Your task to perform on an android device: Empty the shopping cart on amazon. Add "usb-a" to the cart on amazon, then select checkout. Image 0: 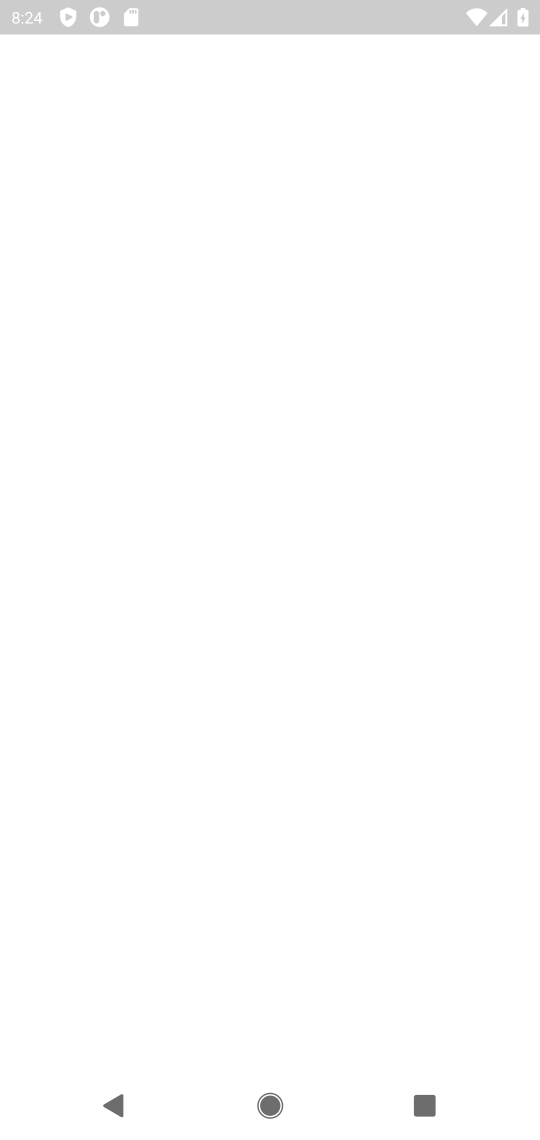
Step 0: press home button
Your task to perform on an android device: Empty the shopping cart on amazon. Add "usb-a" to the cart on amazon, then select checkout. Image 1: 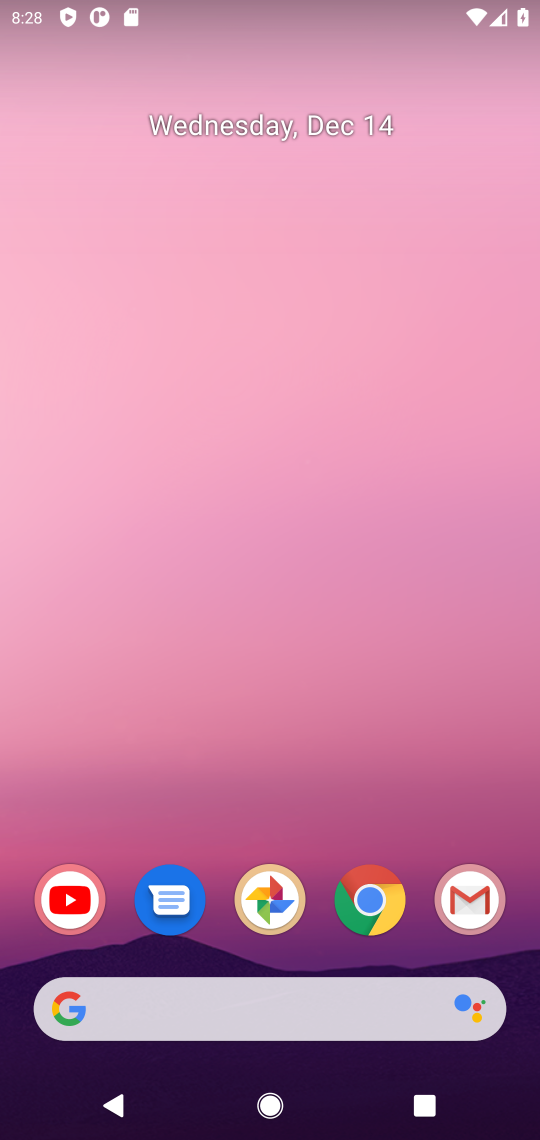
Step 1: click (238, 1003)
Your task to perform on an android device: Empty the shopping cart on amazon. Add "usb-a" to the cart on amazon, then select checkout. Image 2: 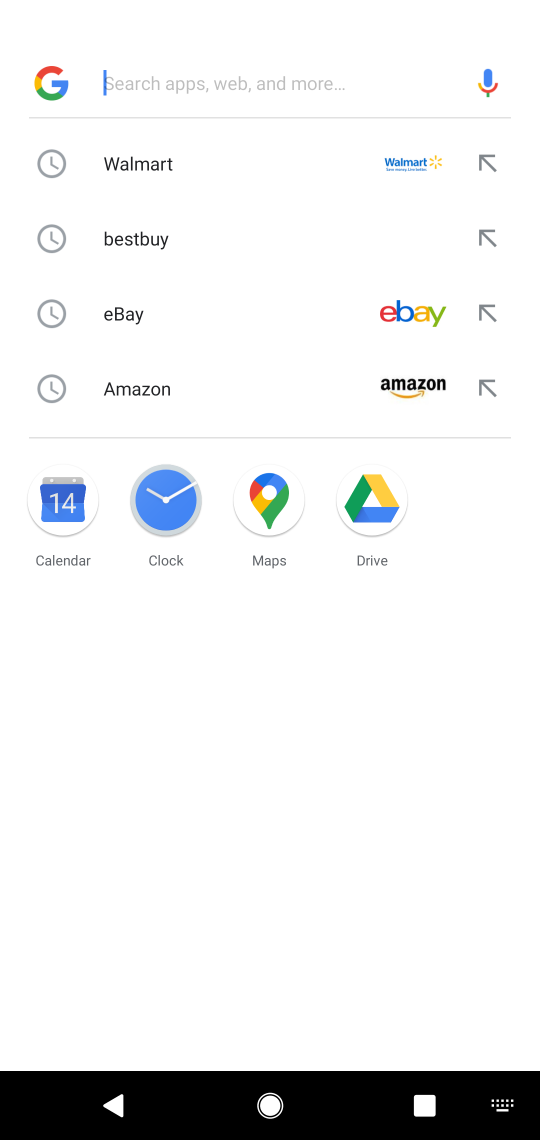
Step 2: click (119, 380)
Your task to perform on an android device: Empty the shopping cart on amazon. Add "usb-a" to the cart on amazon, then select checkout. Image 3: 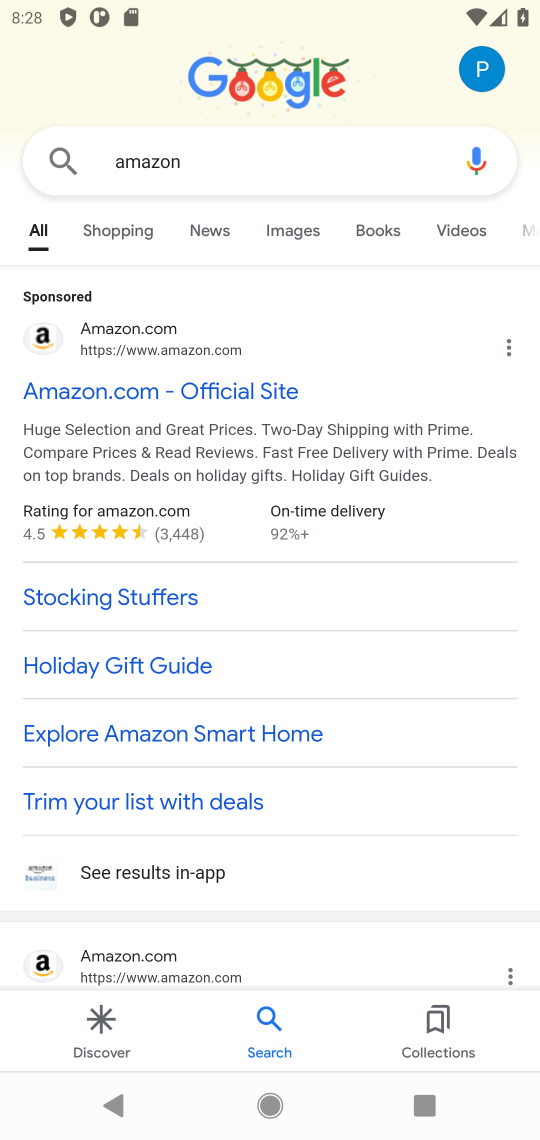
Step 3: click (178, 384)
Your task to perform on an android device: Empty the shopping cart on amazon. Add "usb-a" to the cart on amazon, then select checkout. Image 4: 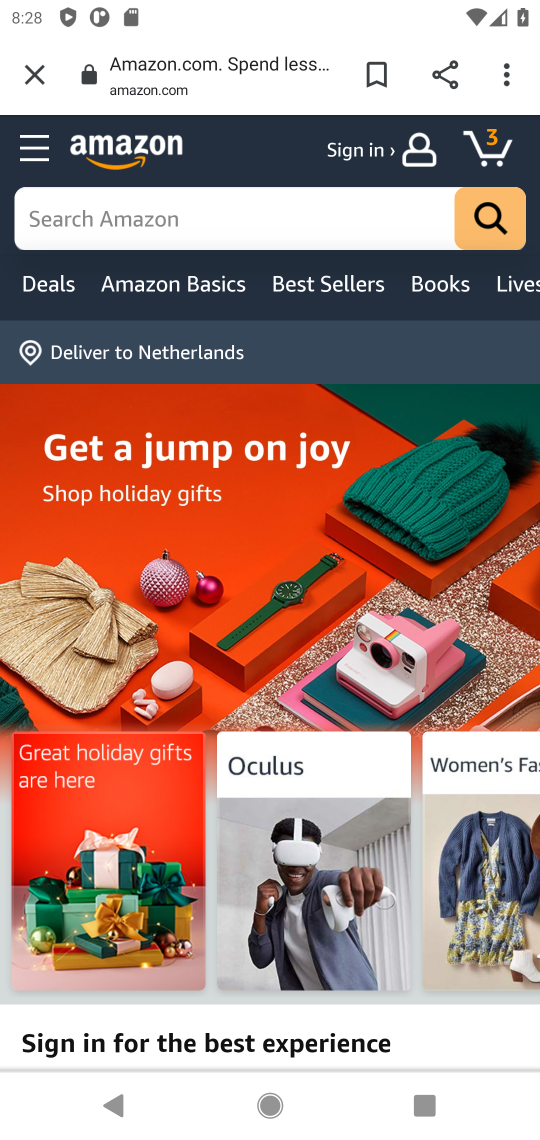
Step 4: click (501, 129)
Your task to perform on an android device: Empty the shopping cart on amazon. Add "usb-a" to the cart on amazon, then select checkout. Image 5: 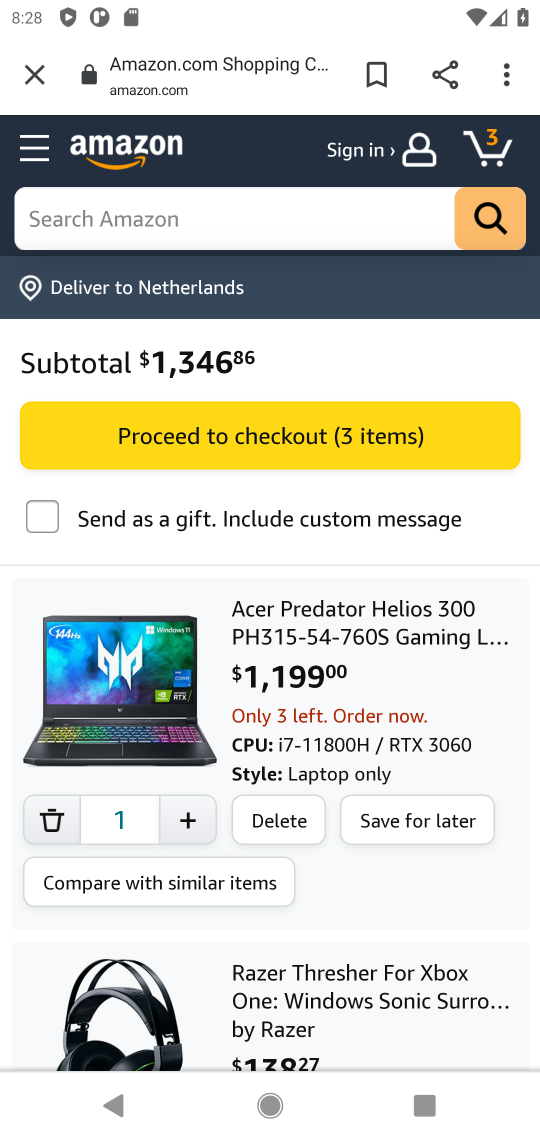
Step 5: click (47, 836)
Your task to perform on an android device: Empty the shopping cart on amazon. Add "usb-a" to the cart on amazon, then select checkout. Image 6: 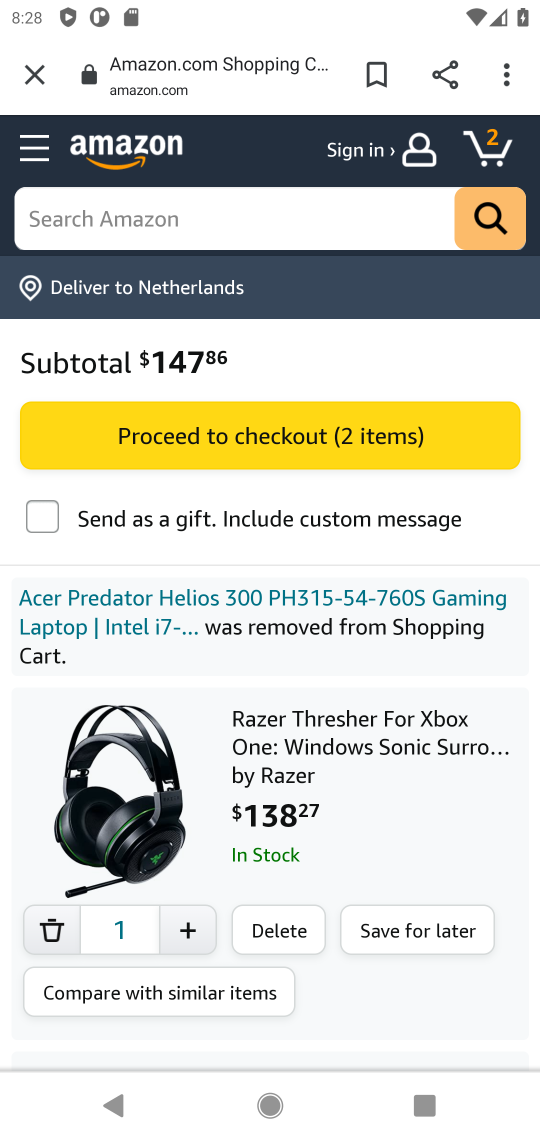
Step 6: click (39, 939)
Your task to perform on an android device: Empty the shopping cart on amazon. Add "usb-a" to the cart on amazon, then select checkout. Image 7: 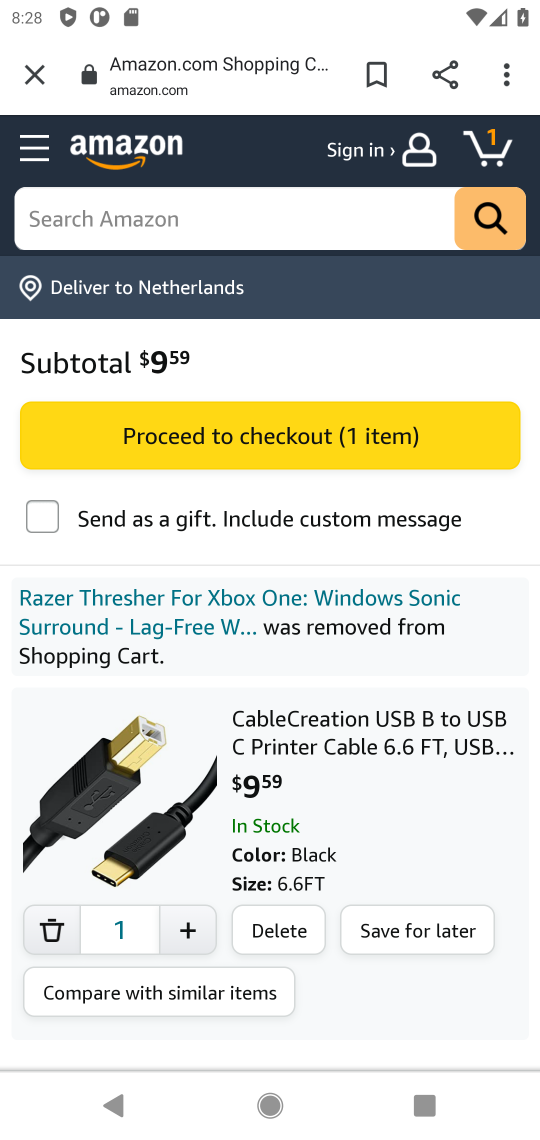
Step 7: click (43, 922)
Your task to perform on an android device: Empty the shopping cart on amazon. Add "usb-a" to the cart on amazon, then select checkout. Image 8: 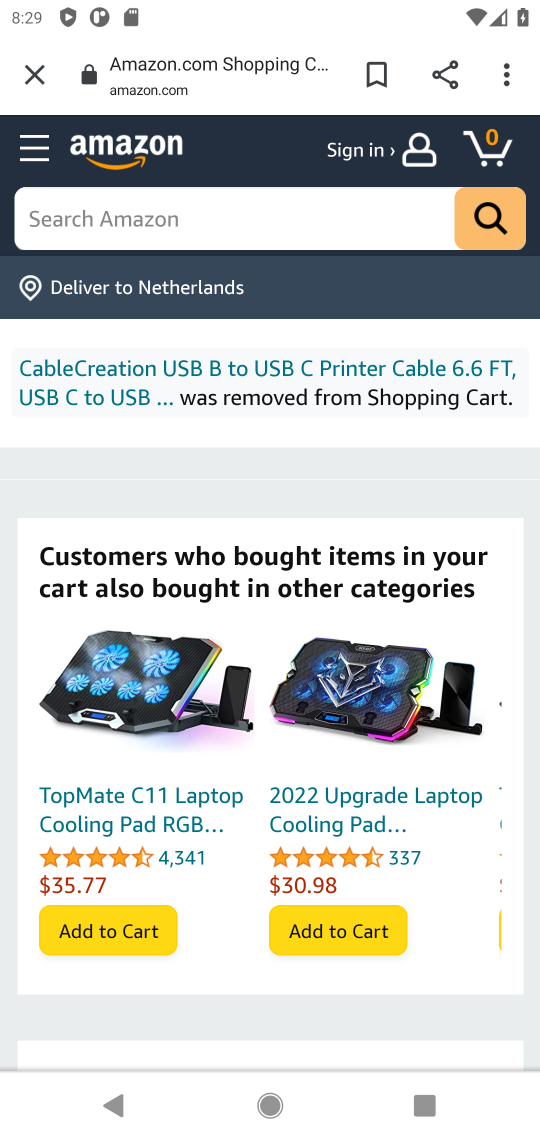
Step 8: click (325, 197)
Your task to perform on an android device: Empty the shopping cart on amazon. Add "usb-a" to the cart on amazon, then select checkout. Image 9: 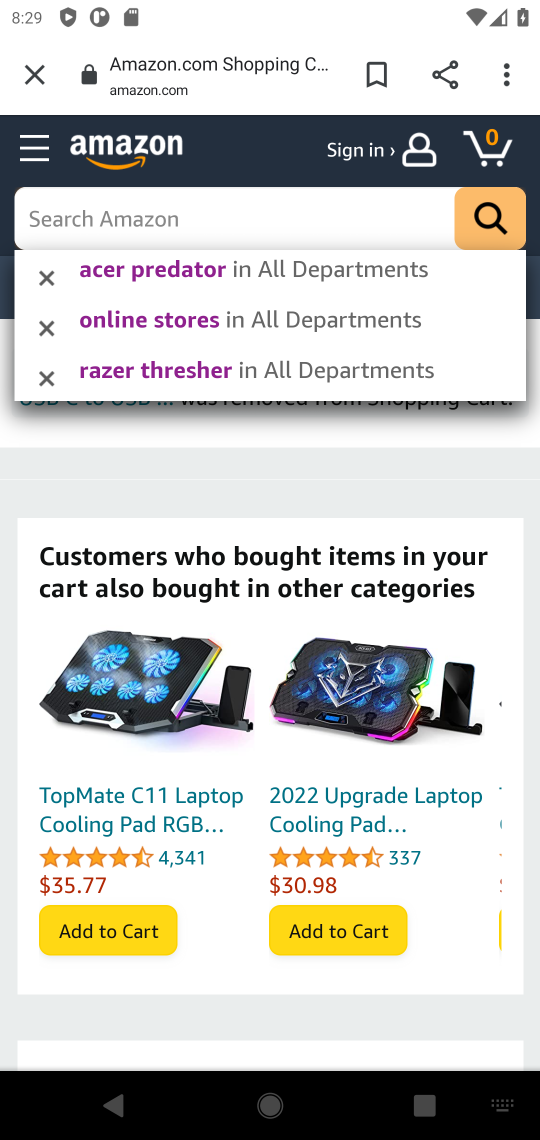
Step 9: type "usb-a"
Your task to perform on an android device: Empty the shopping cart on amazon. Add "usb-a" to the cart on amazon, then select checkout. Image 10: 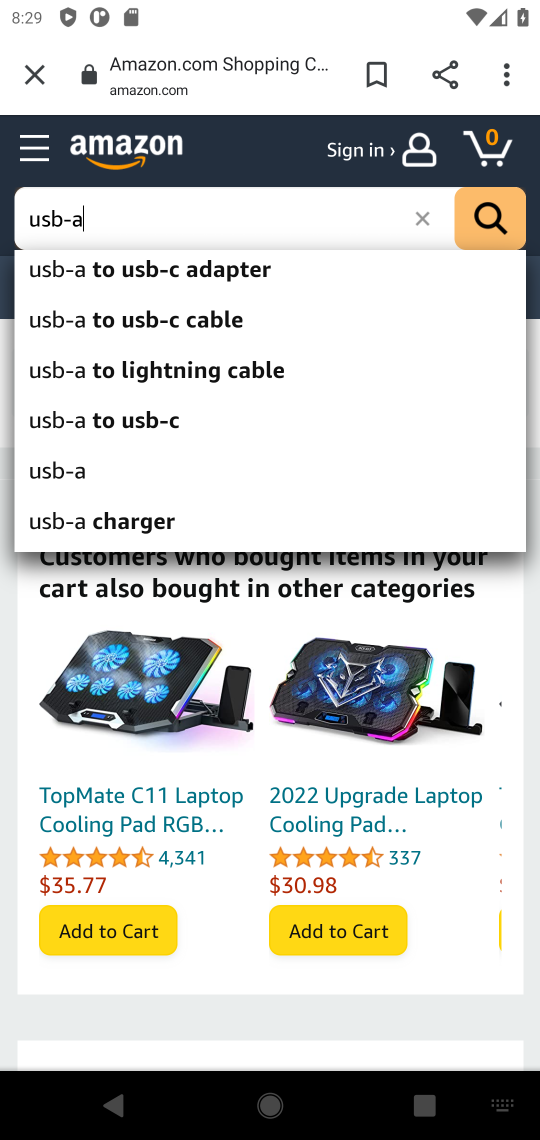
Step 10: type ""
Your task to perform on an android device: Empty the shopping cart on amazon. Add "usb-a" to the cart on amazon, then select checkout. Image 11: 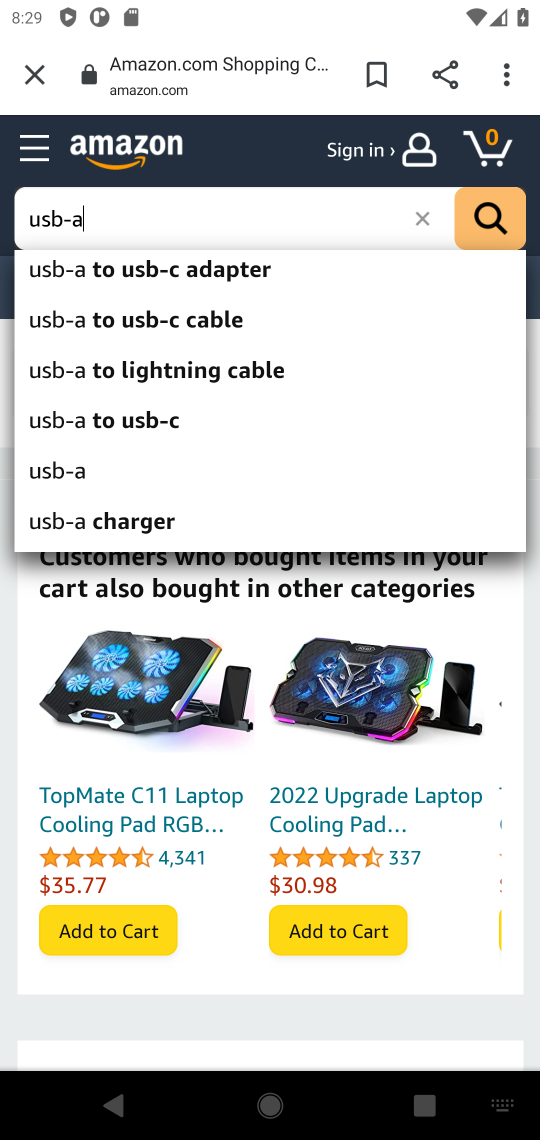
Step 11: click (445, 202)
Your task to perform on an android device: Empty the shopping cart on amazon. Add "usb-a" to the cart on amazon, then select checkout. Image 12: 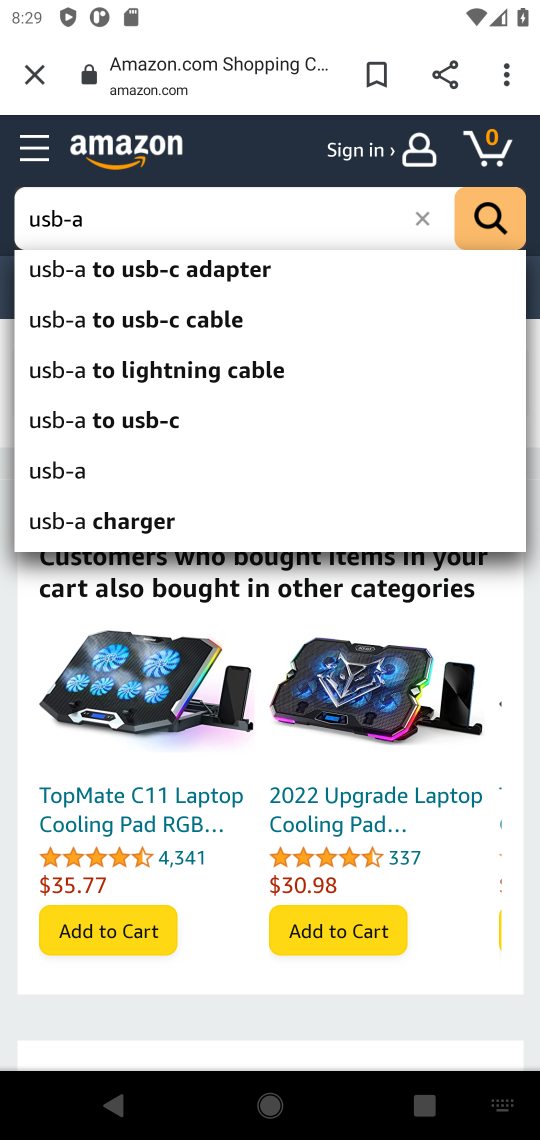
Step 12: click (477, 216)
Your task to perform on an android device: Empty the shopping cart on amazon. Add "usb-a" to the cart on amazon, then select checkout. Image 13: 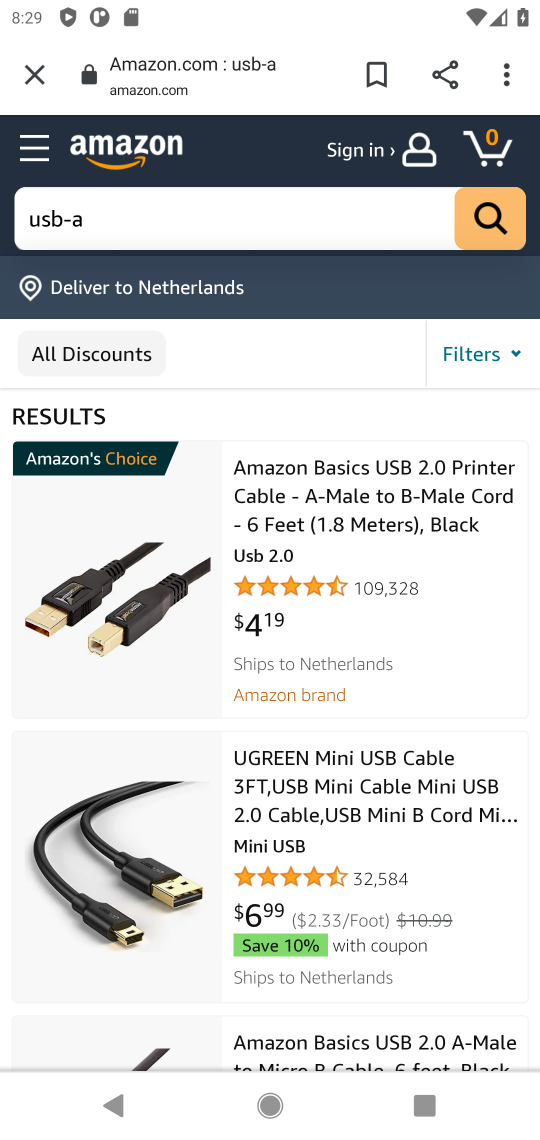
Step 13: click (333, 457)
Your task to perform on an android device: Empty the shopping cart on amazon. Add "usb-a" to the cart on amazon, then select checkout. Image 14: 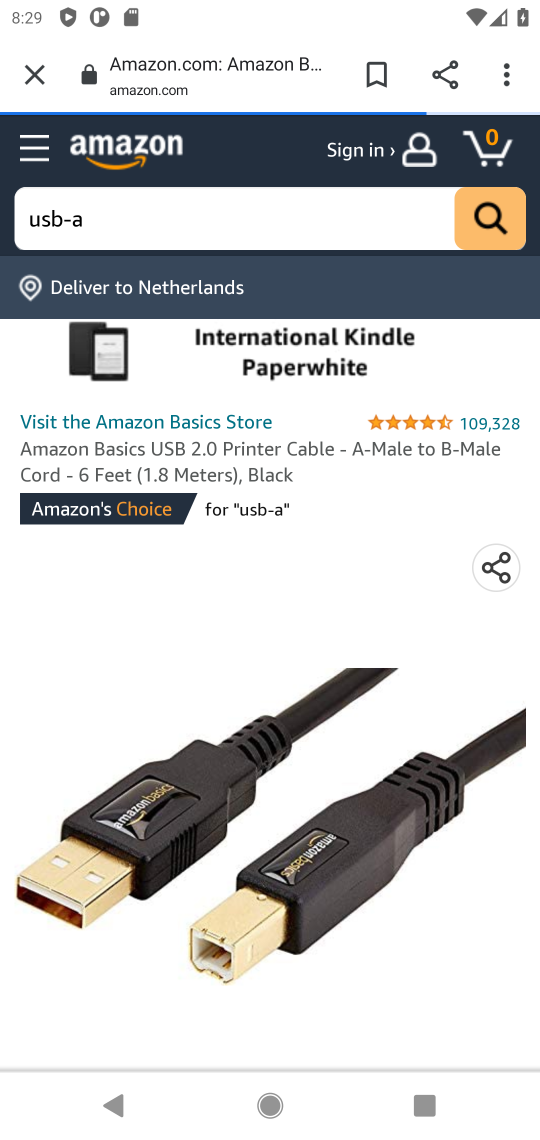
Step 14: drag from (324, 940) to (25, 168)
Your task to perform on an android device: Empty the shopping cart on amazon. Add "usb-a" to the cart on amazon, then select checkout. Image 15: 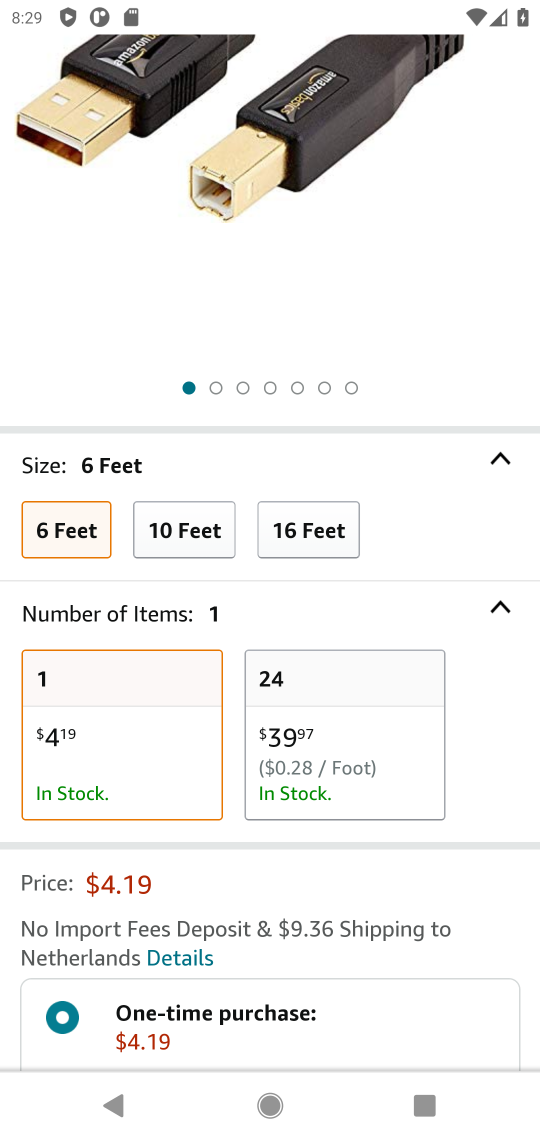
Step 15: drag from (252, 887) to (241, 30)
Your task to perform on an android device: Empty the shopping cart on amazon. Add "usb-a" to the cart on amazon, then select checkout. Image 16: 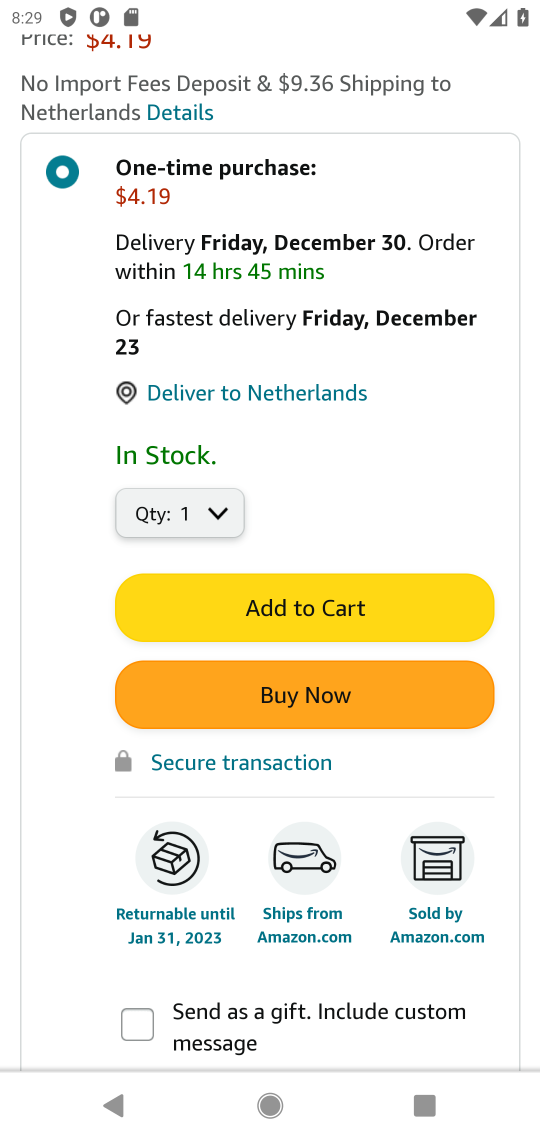
Step 16: click (266, 596)
Your task to perform on an android device: Empty the shopping cart on amazon. Add "usb-a" to the cart on amazon, then select checkout. Image 17: 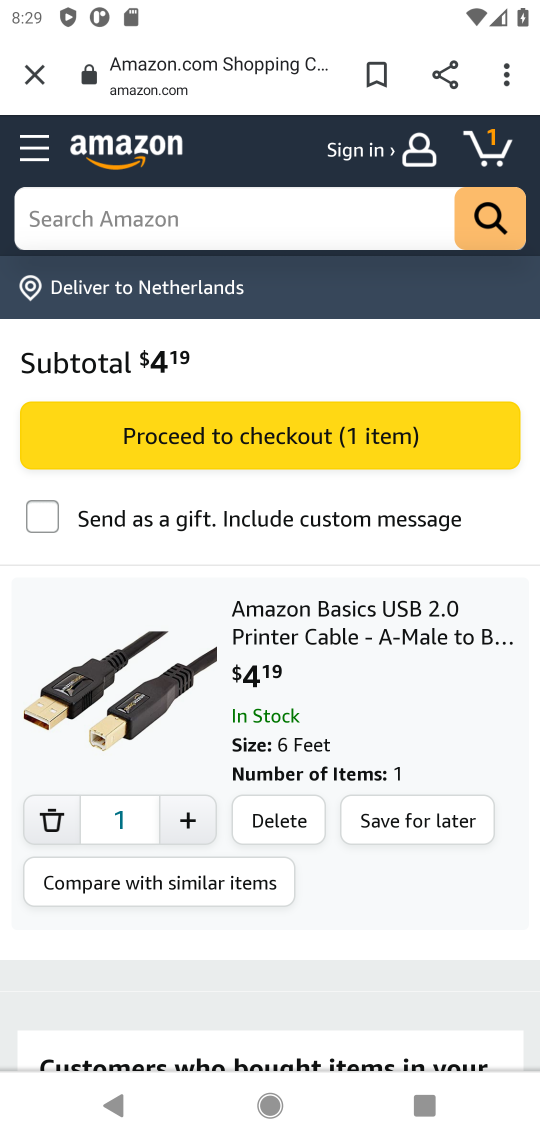
Step 17: click (262, 443)
Your task to perform on an android device: Empty the shopping cart on amazon. Add "usb-a" to the cart on amazon, then select checkout. Image 18: 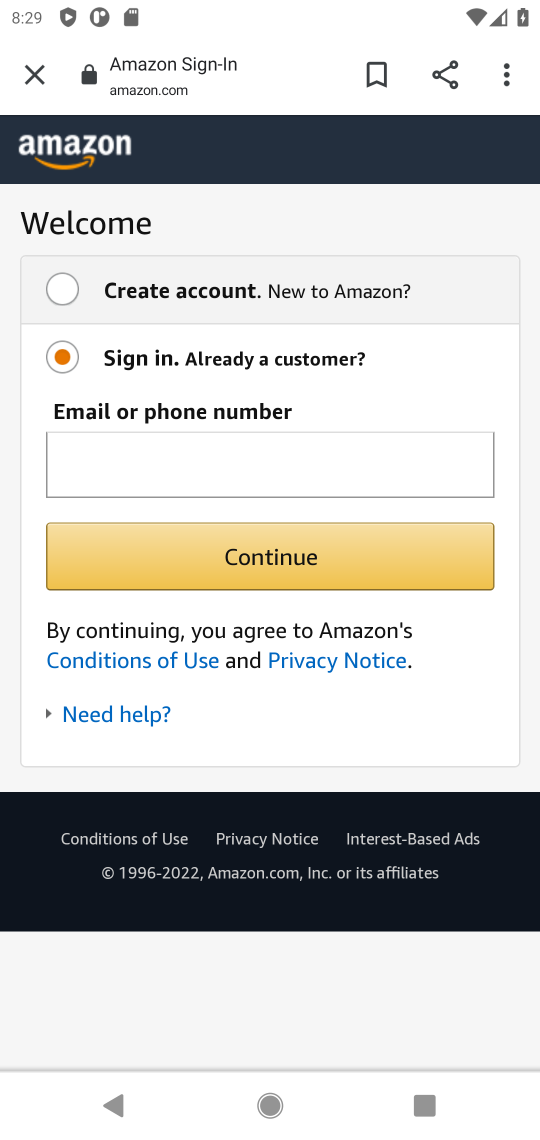
Step 18: task complete